Your task to perform on an android device: Search for seafood restaurants on Google Maps Image 0: 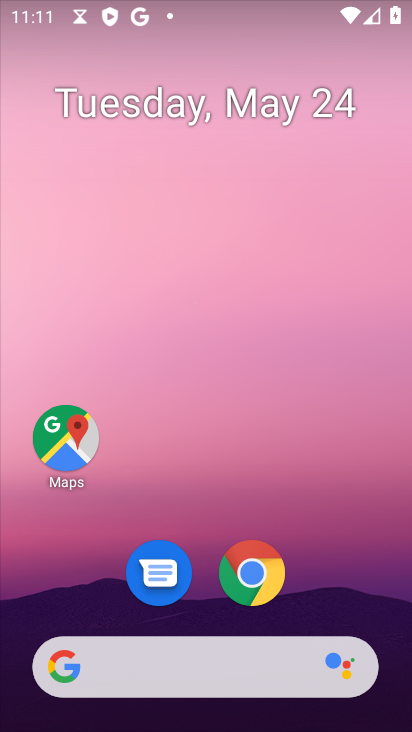
Step 0: click (56, 427)
Your task to perform on an android device: Search for seafood restaurants on Google Maps Image 1: 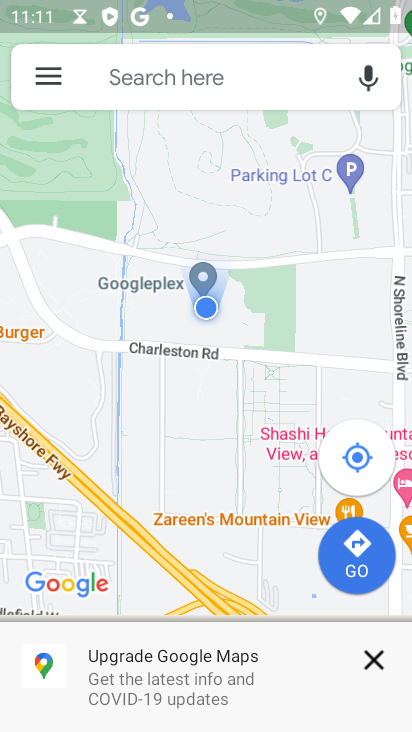
Step 1: click (183, 78)
Your task to perform on an android device: Search for seafood restaurants on Google Maps Image 2: 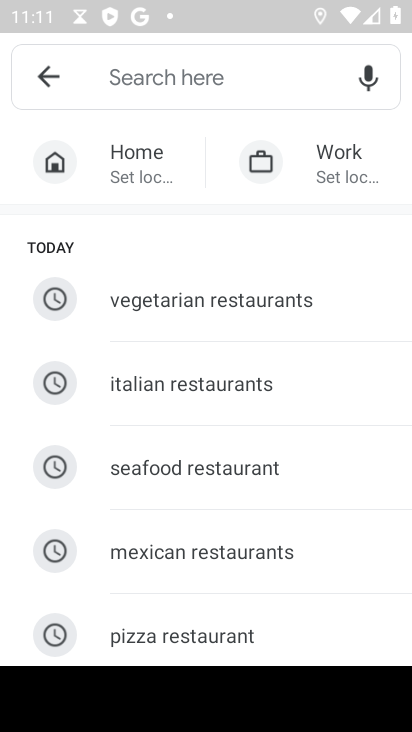
Step 2: type "seafood restaurants"
Your task to perform on an android device: Search for seafood restaurants on Google Maps Image 3: 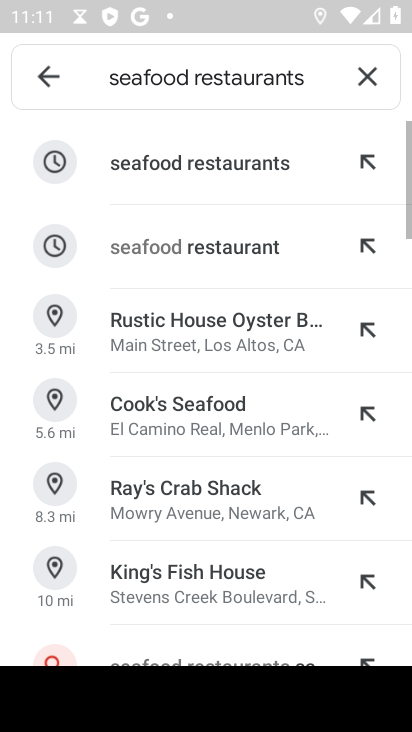
Step 3: click (205, 175)
Your task to perform on an android device: Search for seafood restaurants on Google Maps Image 4: 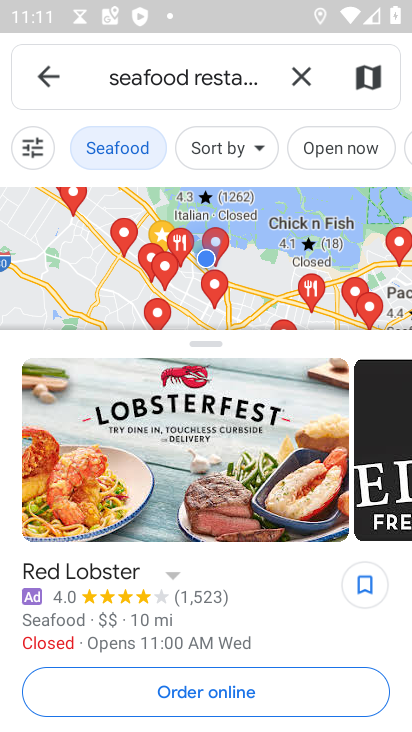
Step 4: task complete